Your task to perform on an android device: turn off airplane mode Image 0: 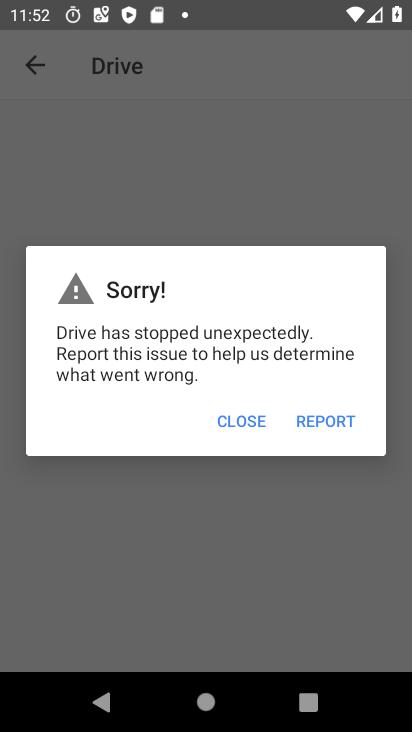
Step 0: press home button
Your task to perform on an android device: turn off airplane mode Image 1: 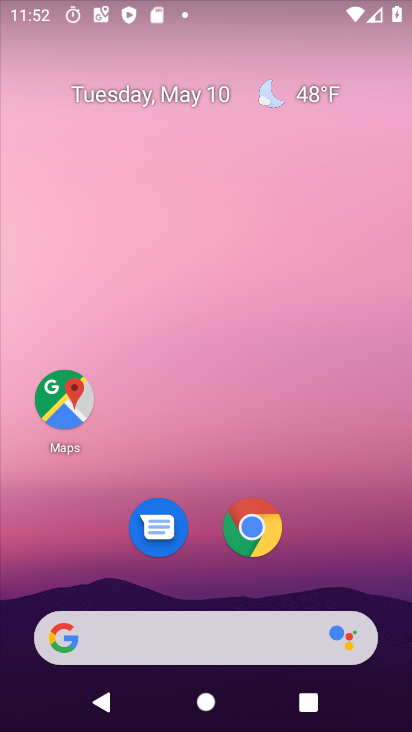
Step 1: drag from (220, 713) to (222, 223)
Your task to perform on an android device: turn off airplane mode Image 2: 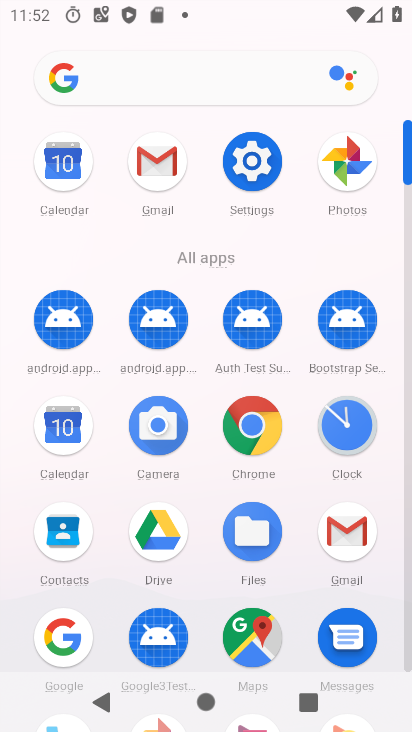
Step 2: click (249, 168)
Your task to perform on an android device: turn off airplane mode Image 3: 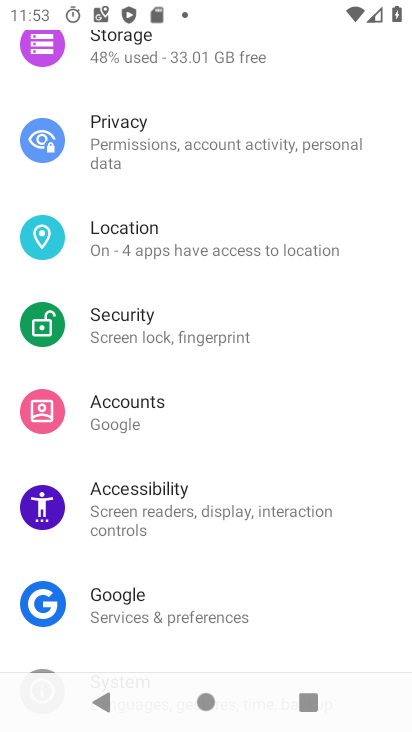
Step 3: drag from (272, 114) to (269, 526)
Your task to perform on an android device: turn off airplane mode Image 4: 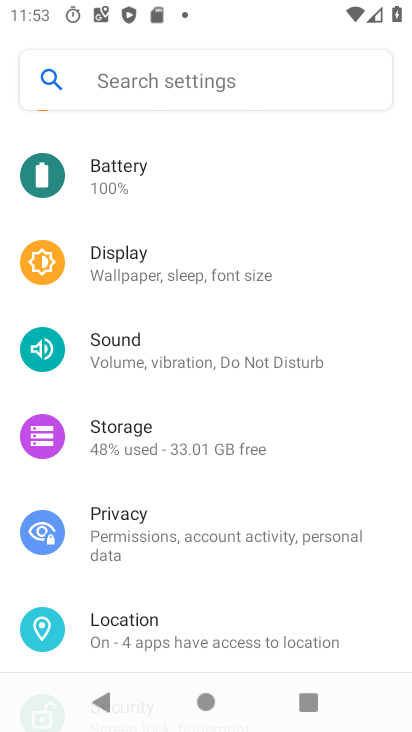
Step 4: drag from (308, 171) to (272, 686)
Your task to perform on an android device: turn off airplane mode Image 5: 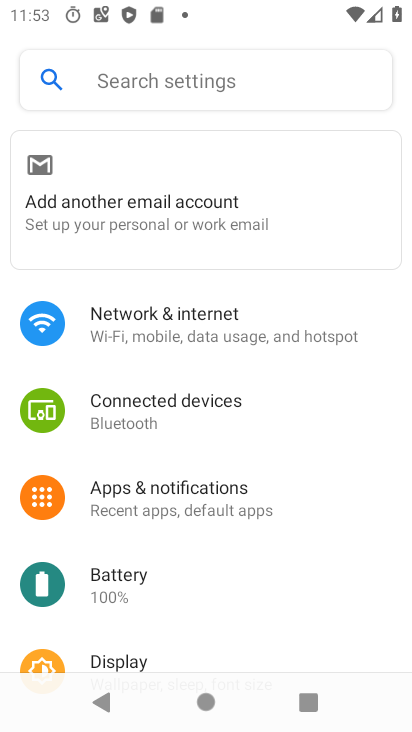
Step 5: click (157, 335)
Your task to perform on an android device: turn off airplane mode Image 6: 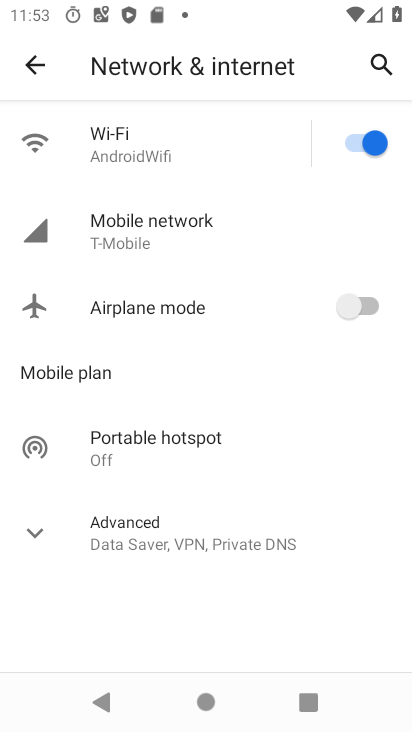
Step 6: task complete